Your task to perform on an android device: What's the weather today? Image 0: 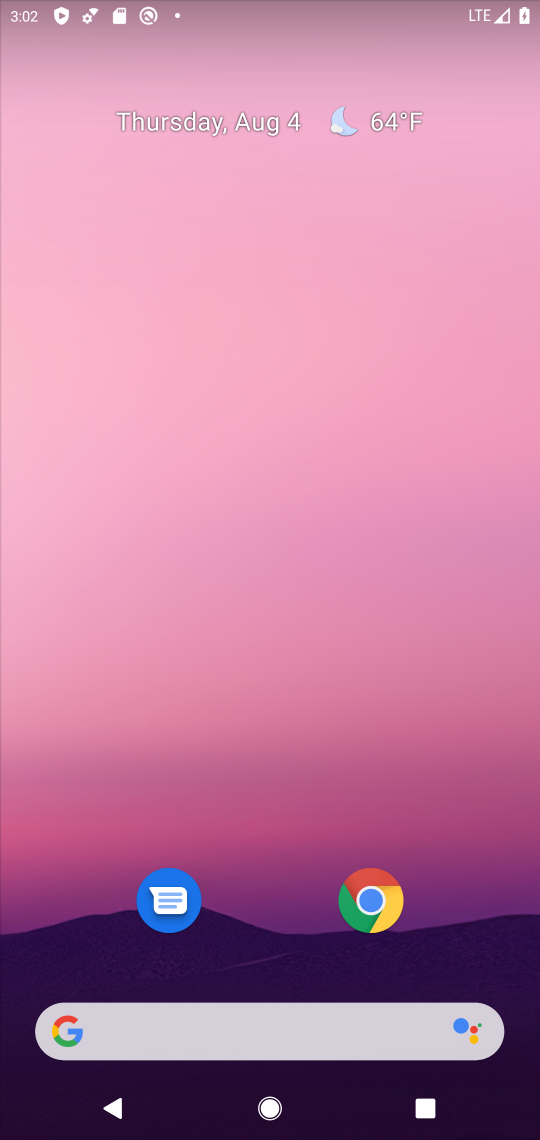
Step 0: drag from (501, 955) to (313, 9)
Your task to perform on an android device: What's the weather today? Image 1: 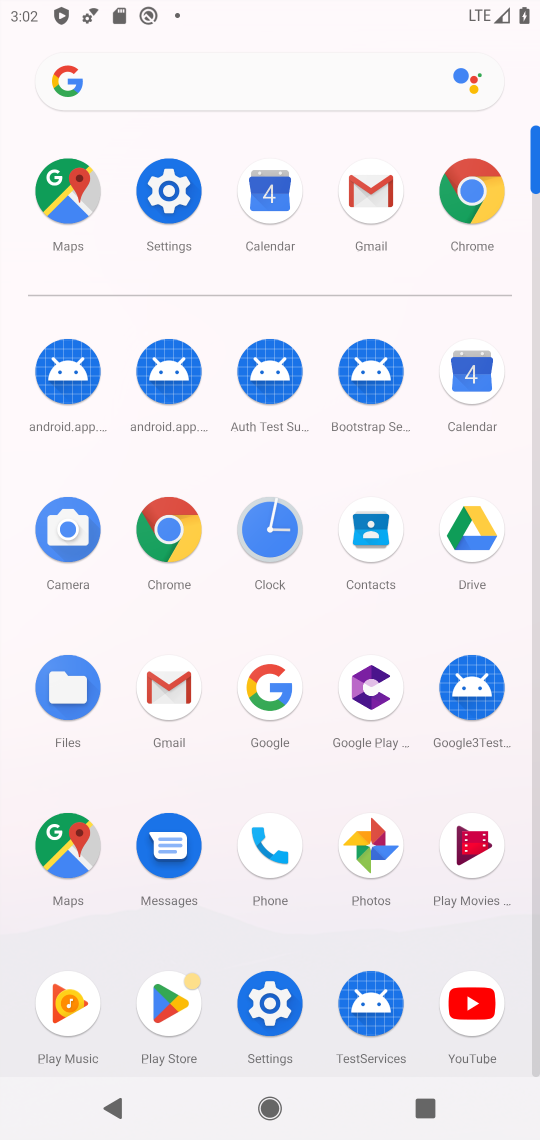
Step 1: click (465, 200)
Your task to perform on an android device: What's the weather today? Image 2: 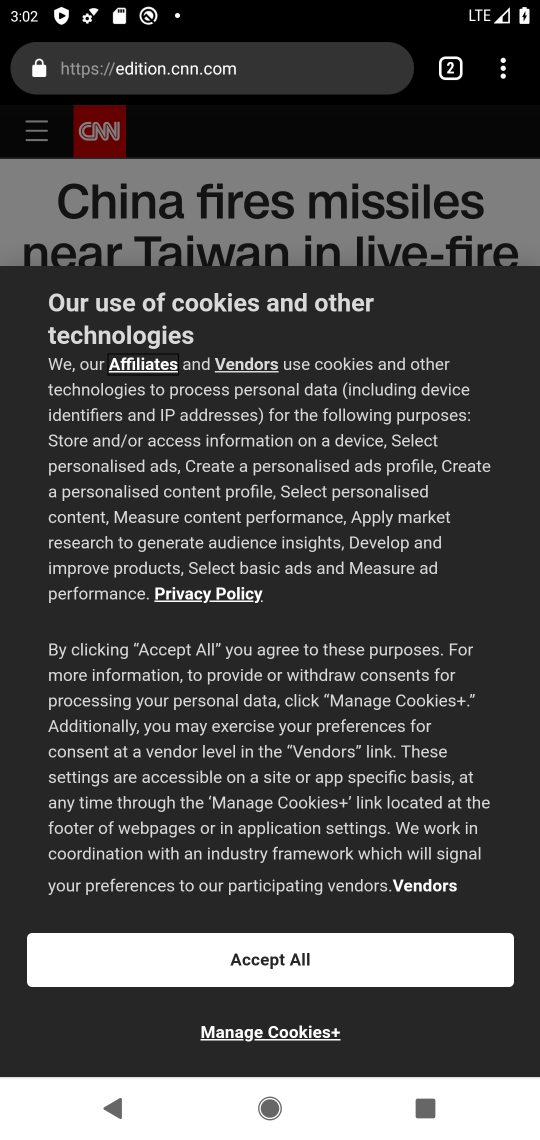
Step 2: click (357, 80)
Your task to perform on an android device: What's the weather today? Image 3: 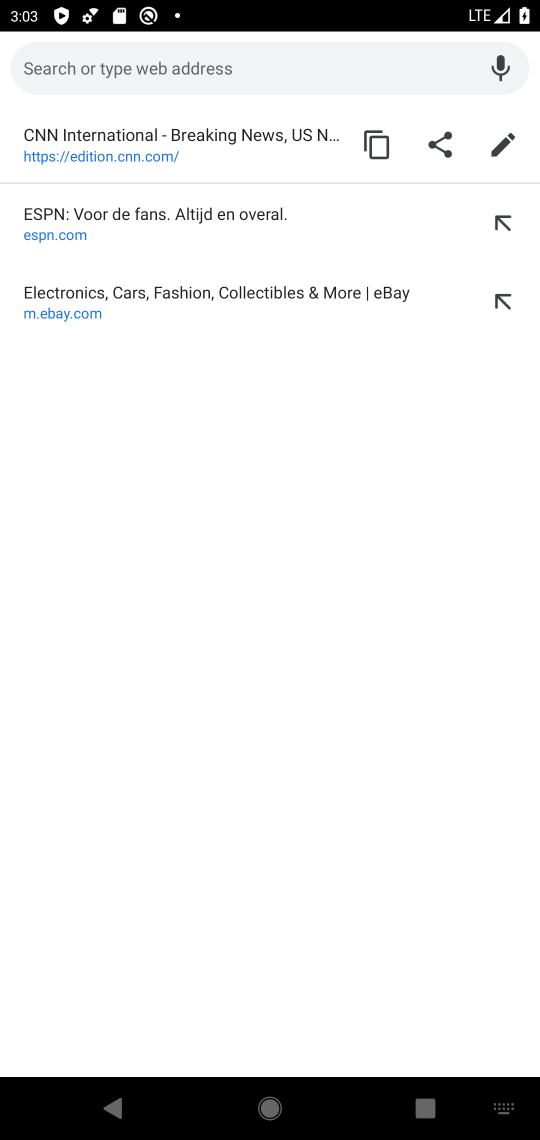
Step 3: type "What's the weather today?"
Your task to perform on an android device: What's the weather today? Image 4: 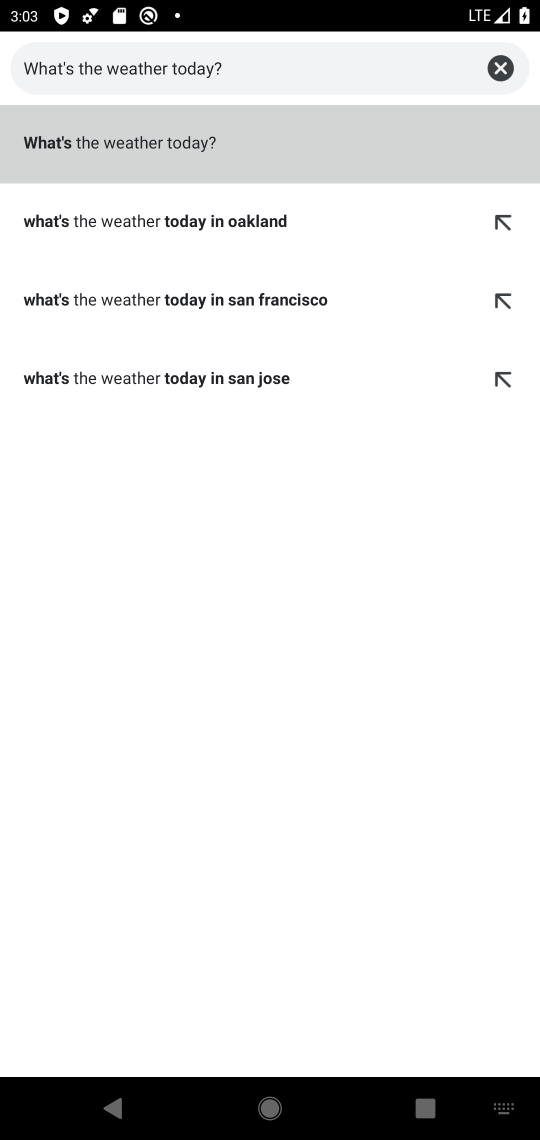
Step 4: click (203, 152)
Your task to perform on an android device: What's the weather today? Image 5: 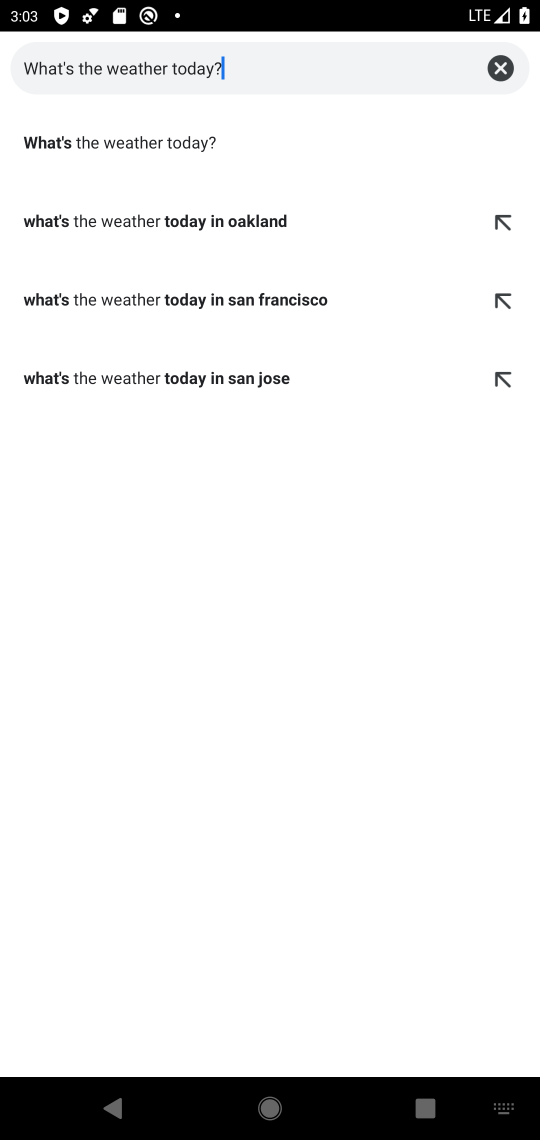
Step 5: click (227, 139)
Your task to perform on an android device: What's the weather today? Image 6: 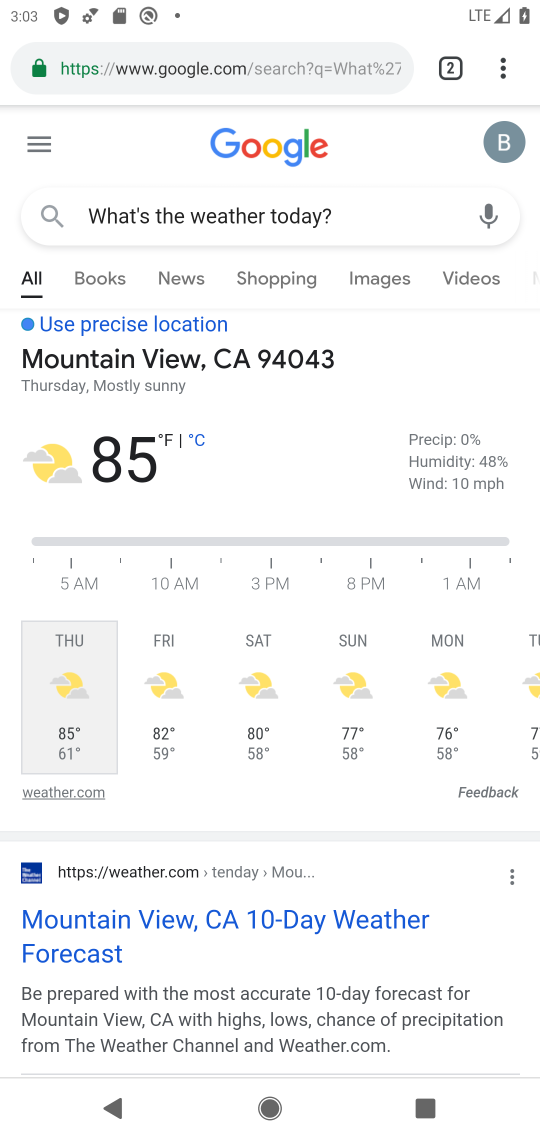
Step 6: task complete